Your task to perform on an android device: see tabs open on other devices in the chrome app Image 0: 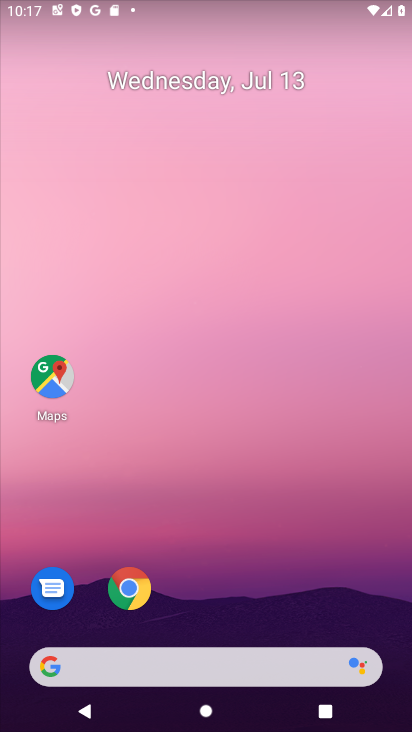
Step 0: click (138, 591)
Your task to perform on an android device: see tabs open on other devices in the chrome app Image 1: 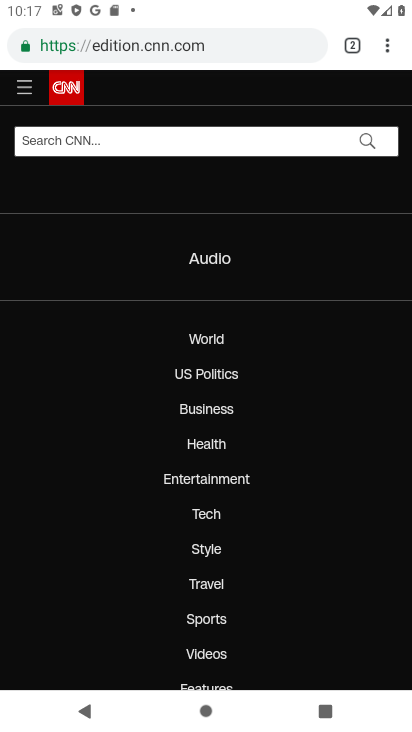
Step 1: click (382, 40)
Your task to perform on an android device: see tabs open on other devices in the chrome app Image 2: 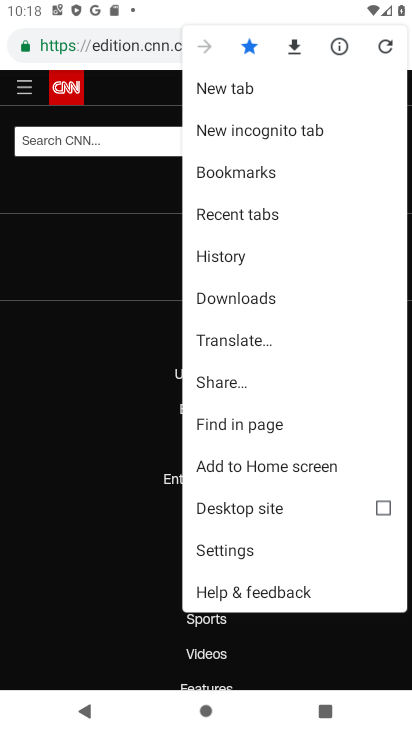
Step 2: click (163, 26)
Your task to perform on an android device: see tabs open on other devices in the chrome app Image 3: 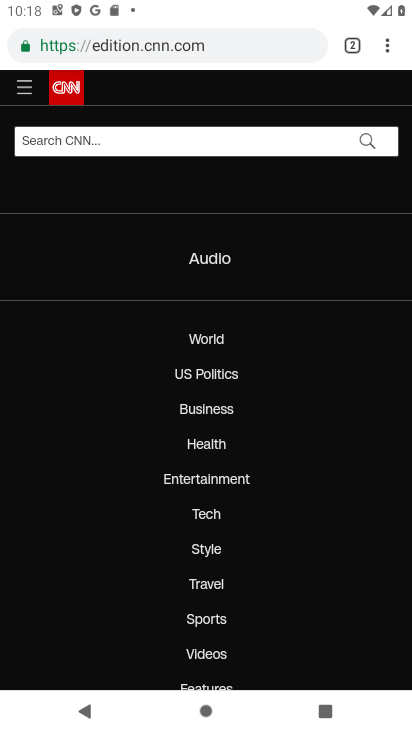
Step 3: click (352, 43)
Your task to perform on an android device: see tabs open on other devices in the chrome app Image 4: 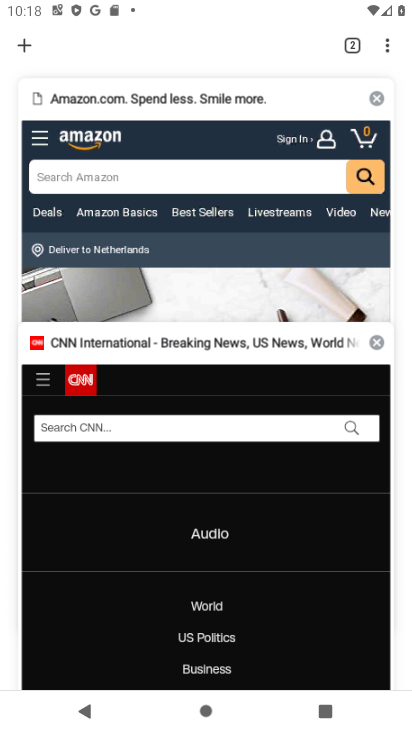
Step 4: task complete